Your task to perform on an android device: open app "Adobe Acrobat Reader: Edit PDF" Image 0: 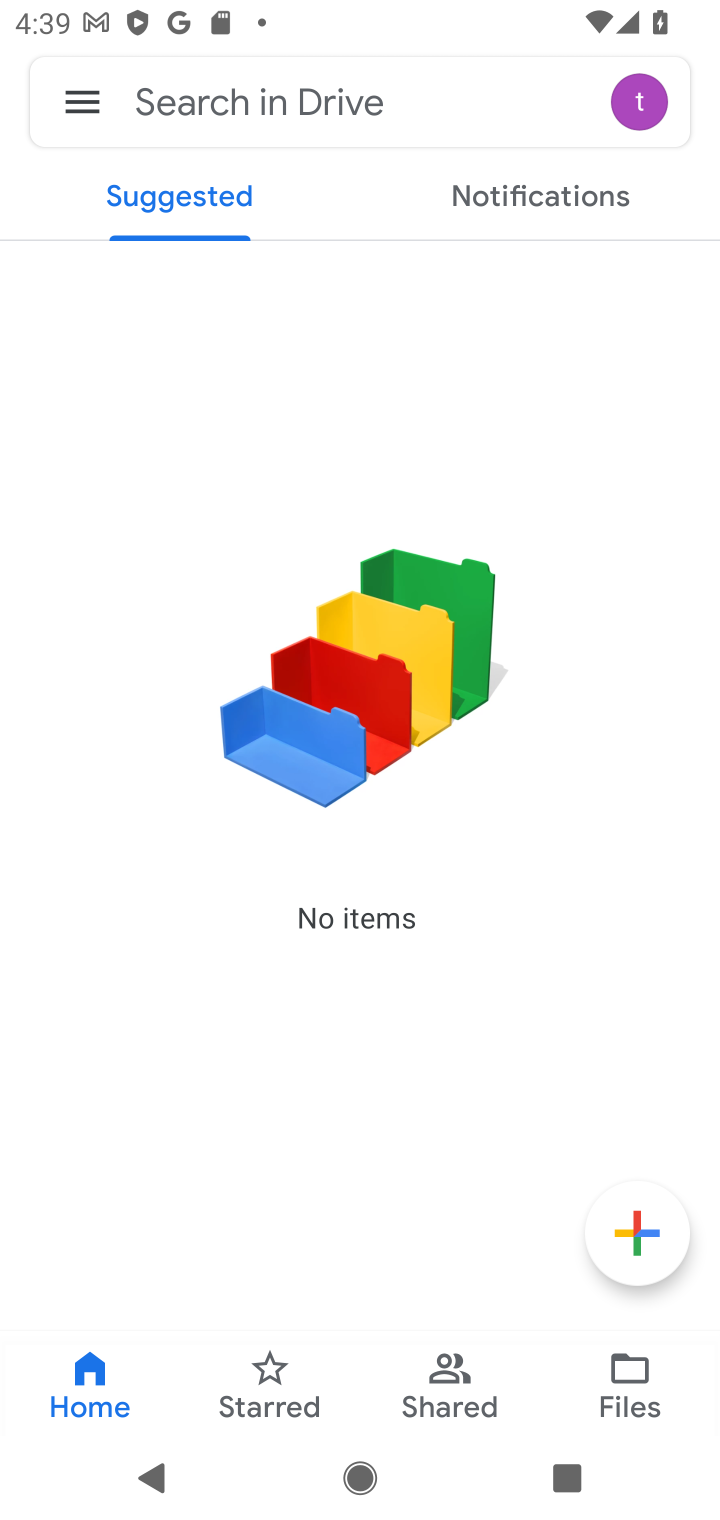
Step 0: press home button
Your task to perform on an android device: open app "Adobe Acrobat Reader: Edit PDF" Image 1: 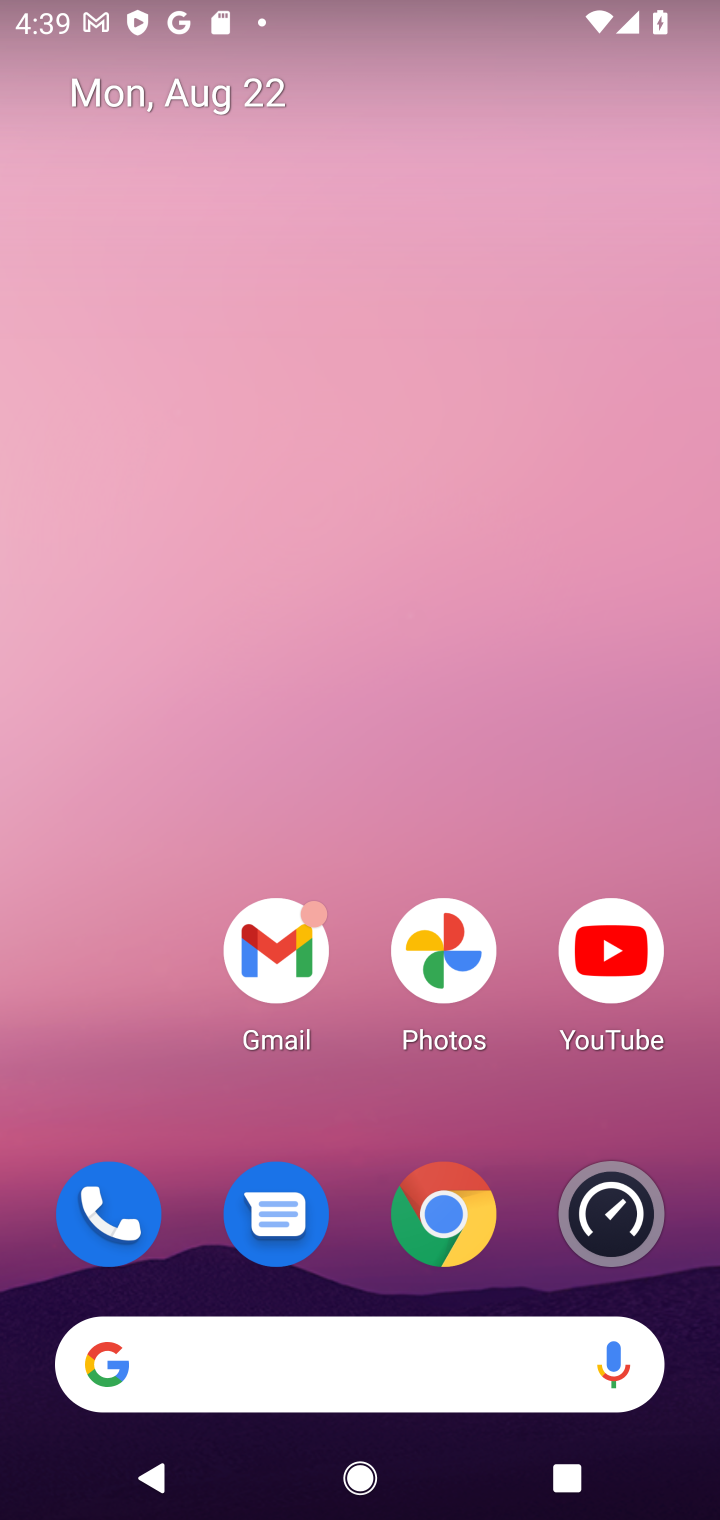
Step 1: drag from (568, 1298) to (457, 348)
Your task to perform on an android device: open app "Adobe Acrobat Reader: Edit PDF" Image 2: 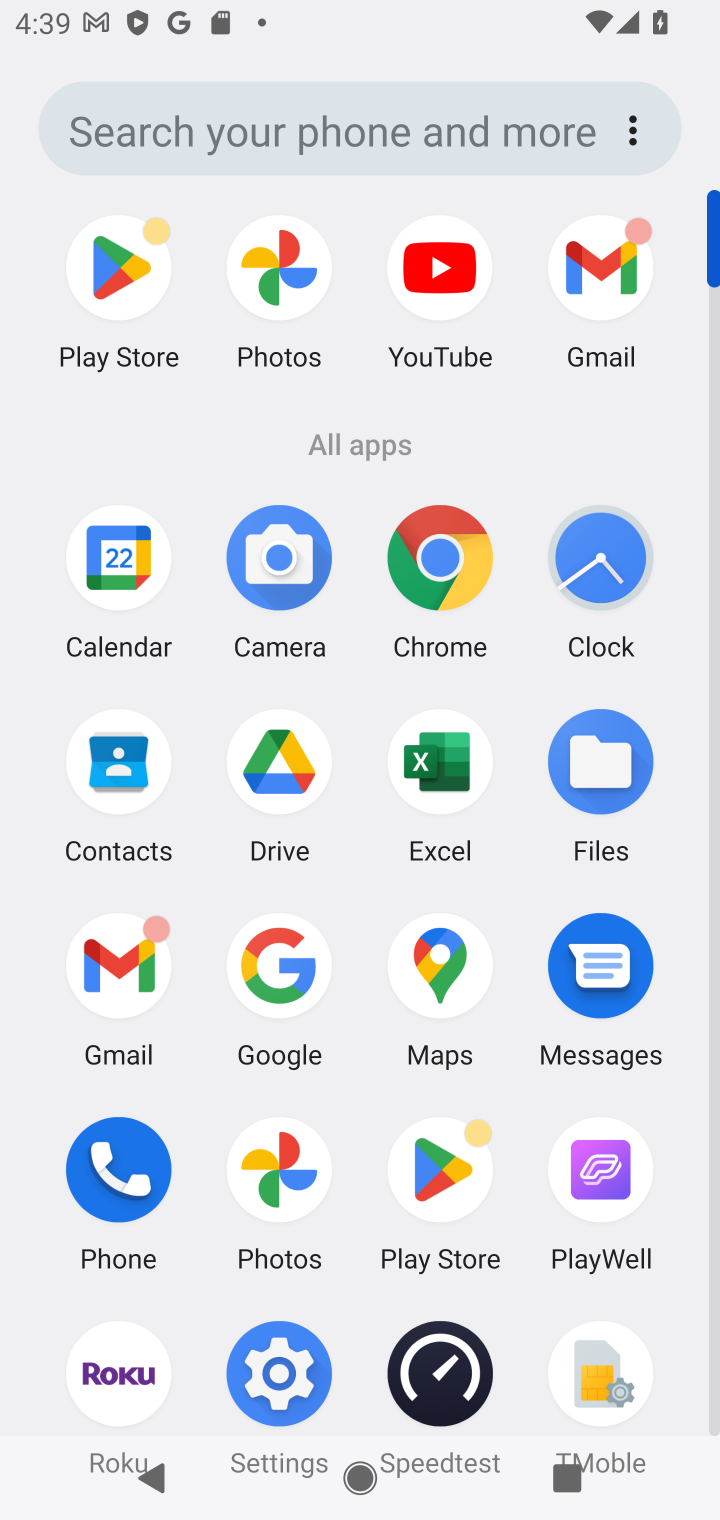
Step 2: click (441, 1153)
Your task to perform on an android device: open app "Adobe Acrobat Reader: Edit PDF" Image 3: 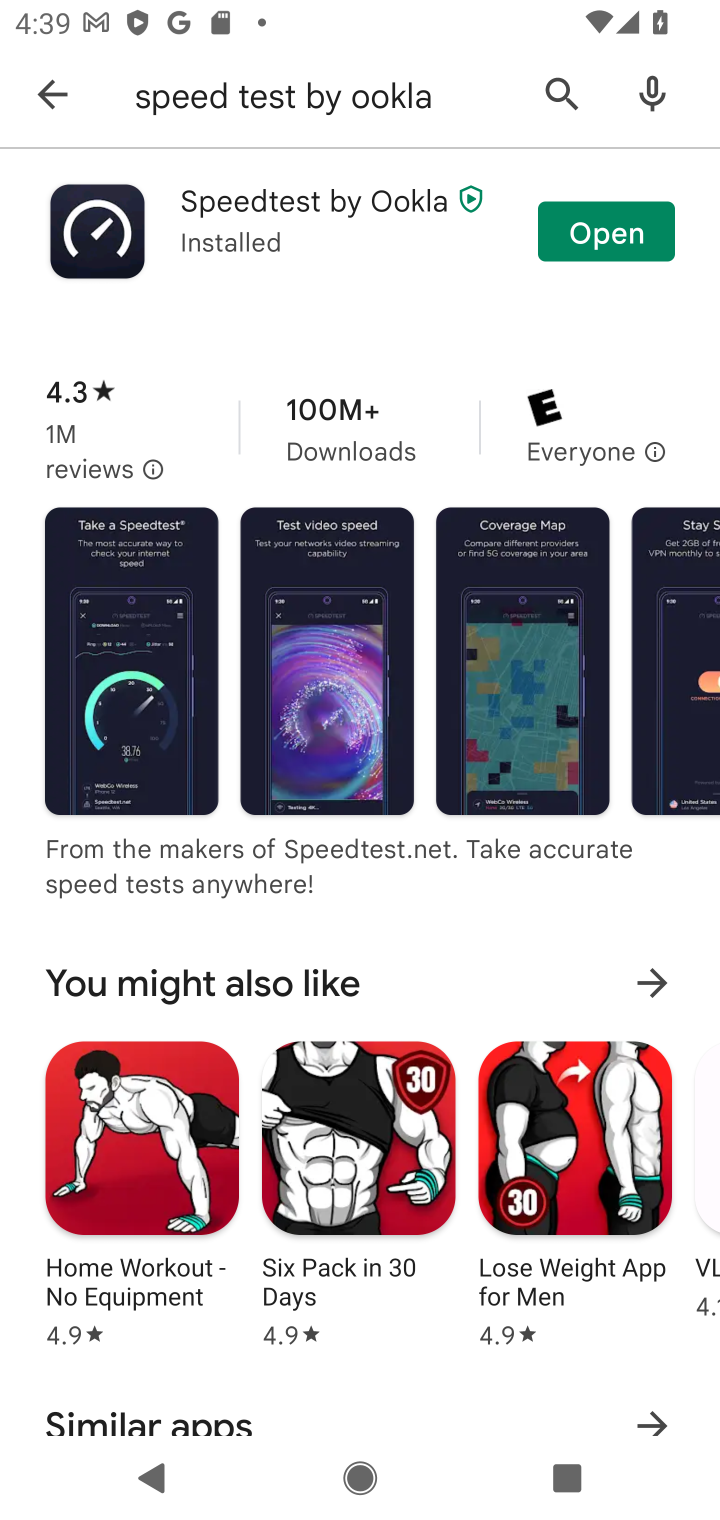
Step 3: click (566, 89)
Your task to perform on an android device: open app "Adobe Acrobat Reader: Edit PDF" Image 4: 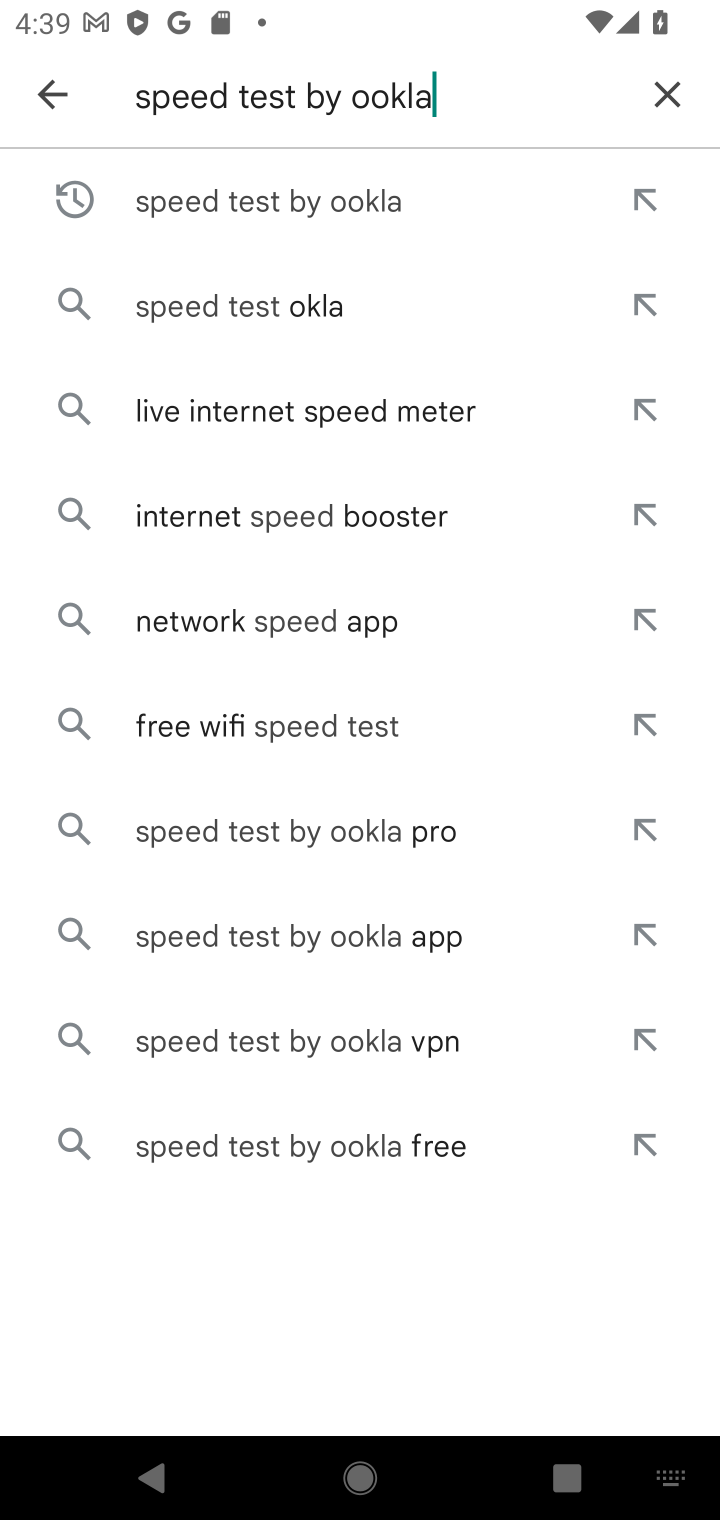
Step 4: click (674, 92)
Your task to perform on an android device: open app "Adobe Acrobat Reader: Edit PDF" Image 5: 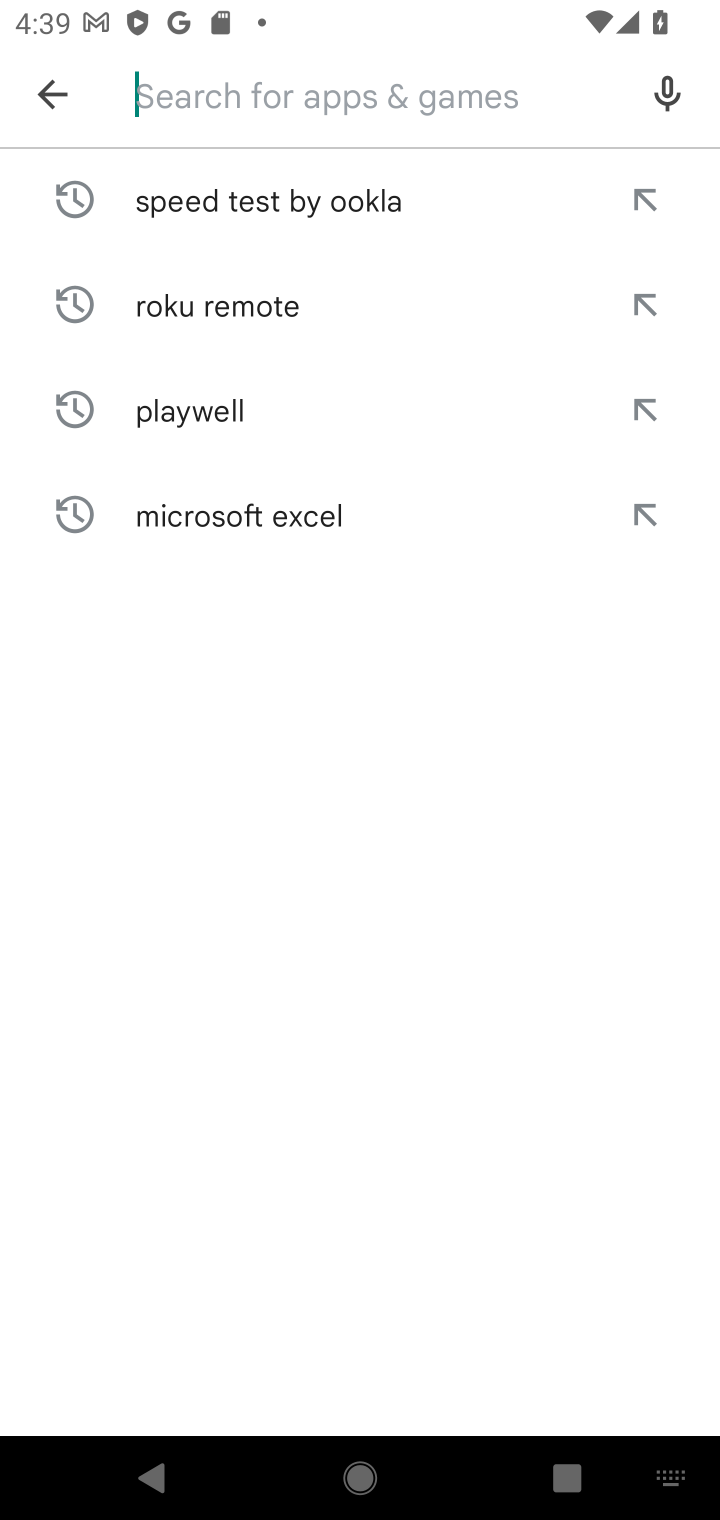
Step 5: type "Adobe Acrobat Reader: Edit PDF"
Your task to perform on an android device: open app "Adobe Acrobat Reader: Edit PDF" Image 6: 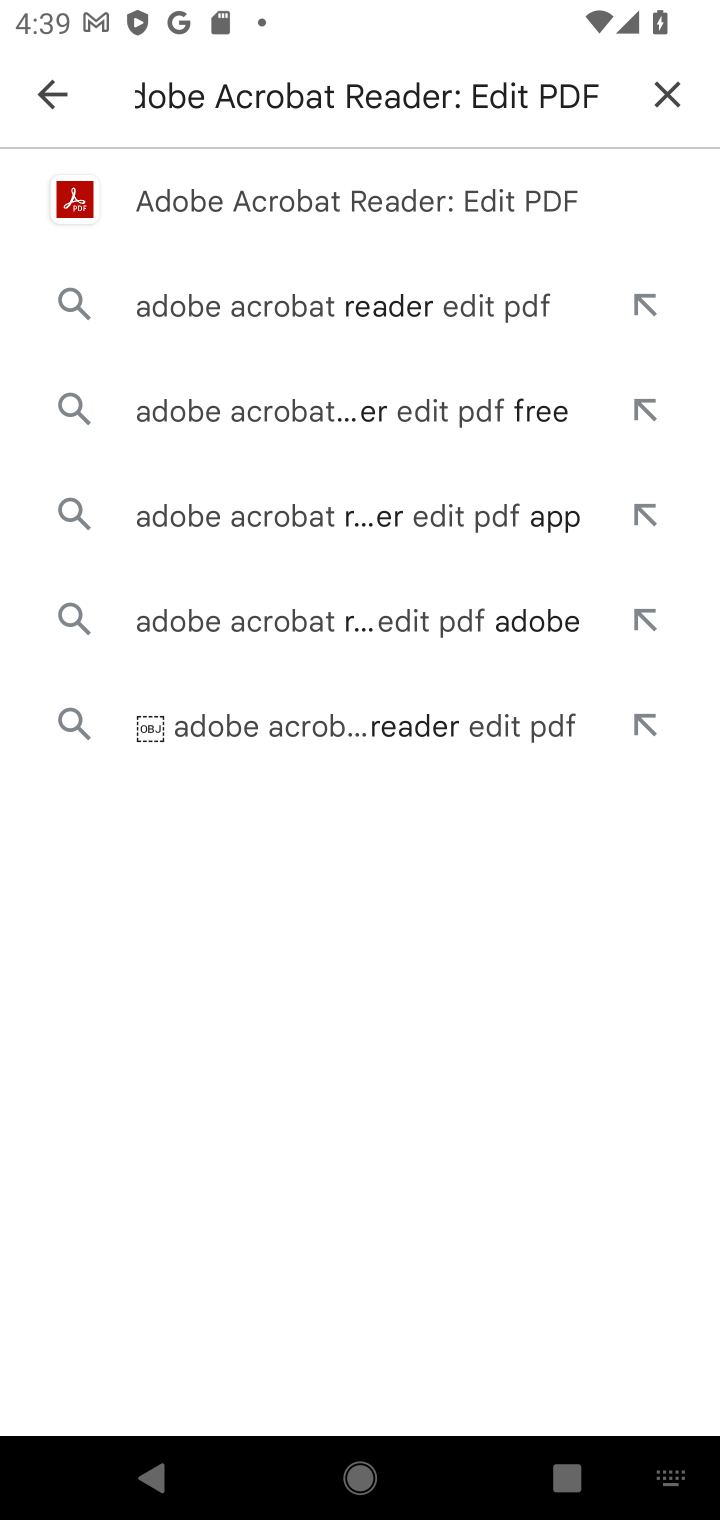
Step 6: click (246, 205)
Your task to perform on an android device: open app "Adobe Acrobat Reader: Edit PDF" Image 7: 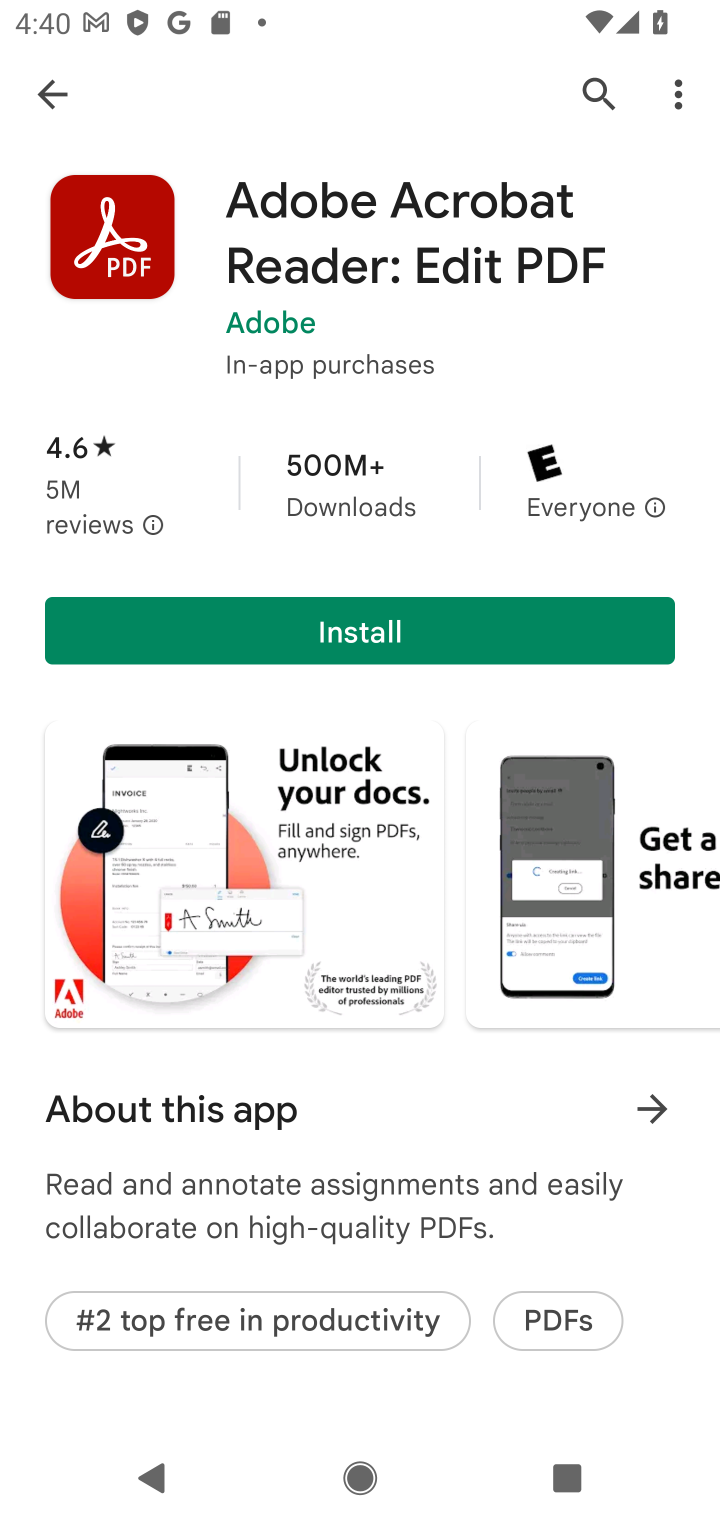
Step 7: task complete